Your task to perform on an android device: When is my next meeting? Image 0: 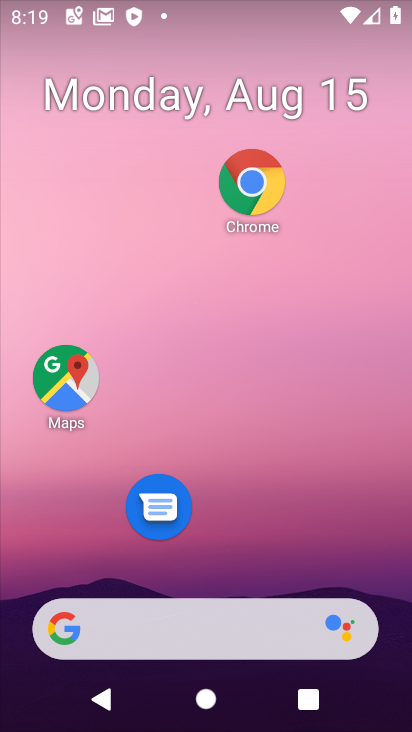
Step 0: drag from (219, 582) to (141, 70)
Your task to perform on an android device: When is my next meeting? Image 1: 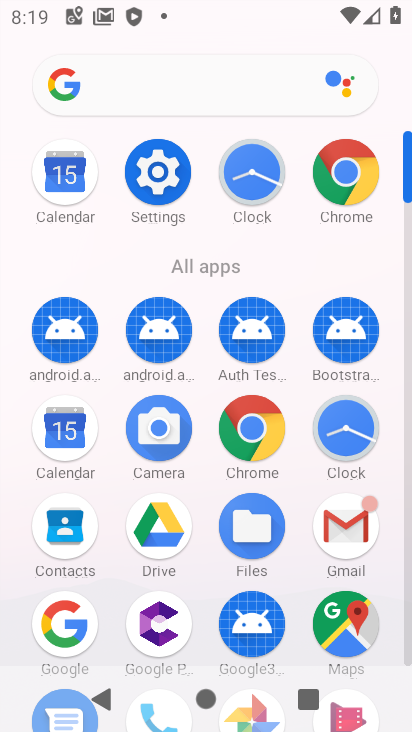
Step 1: click (55, 197)
Your task to perform on an android device: When is my next meeting? Image 2: 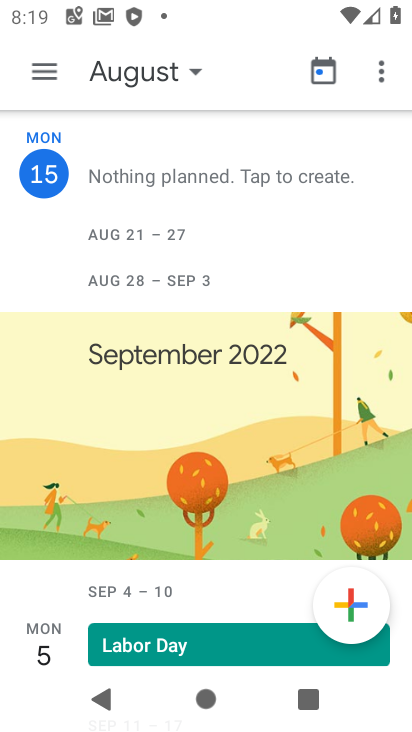
Step 2: task complete